Your task to perform on an android device: set the stopwatch Image 0: 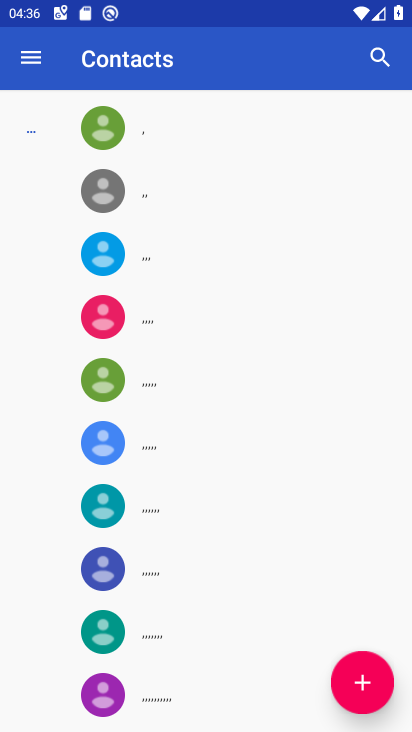
Step 0: press home button
Your task to perform on an android device: set the stopwatch Image 1: 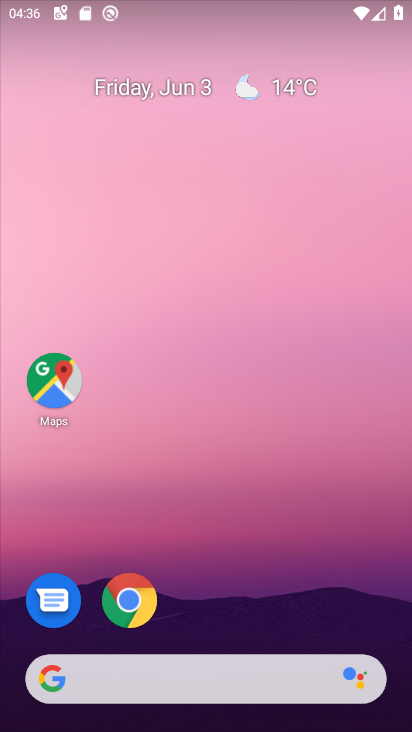
Step 1: drag from (255, 521) to (261, 153)
Your task to perform on an android device: set the stopwatch Image 2: 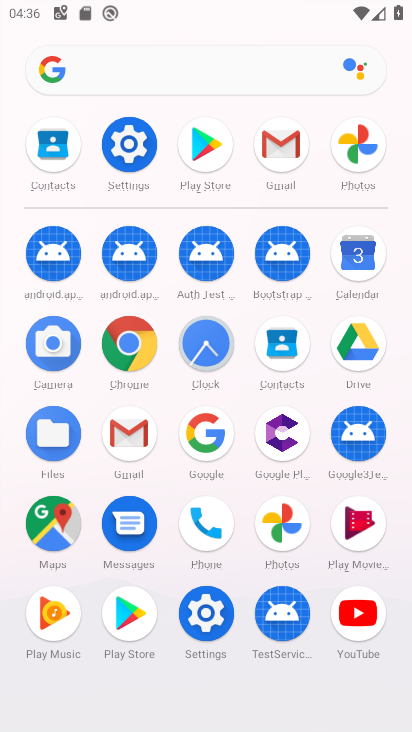
Step 2: click (213, 336)
Your task to perform on an android device: set the stopwatch Image 3: 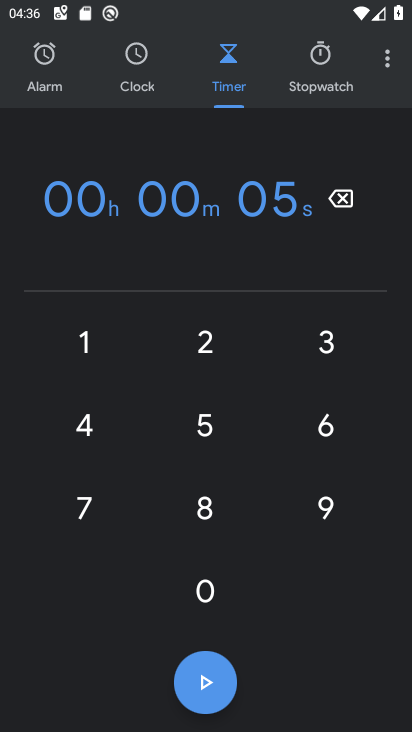
Step 3: click (313, 70)
Your task to perform on an android device: set the stopwatch Image 4: 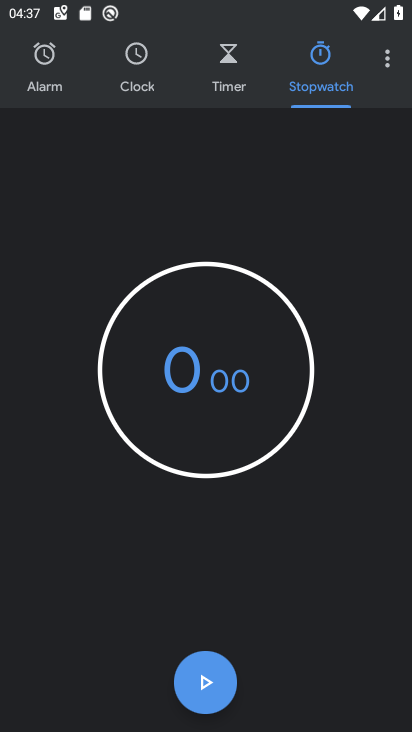
Step 4: click (203, 690)
Your task to perform on an android device: set the stopwatch Image 5: 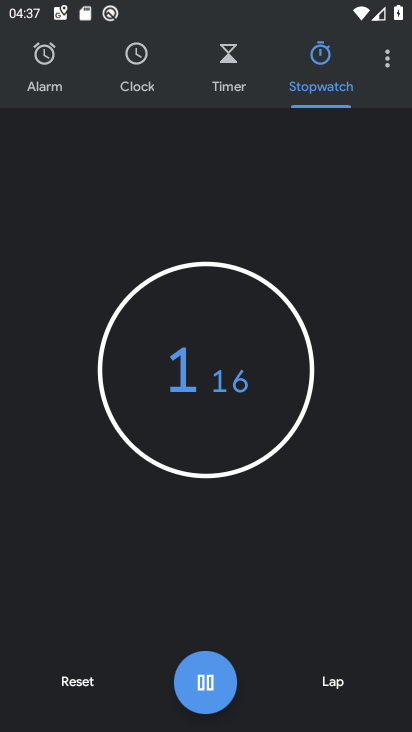
Step 5: click (203, 690)
Your task to perform on an android device: set the stopwatch Image 6: 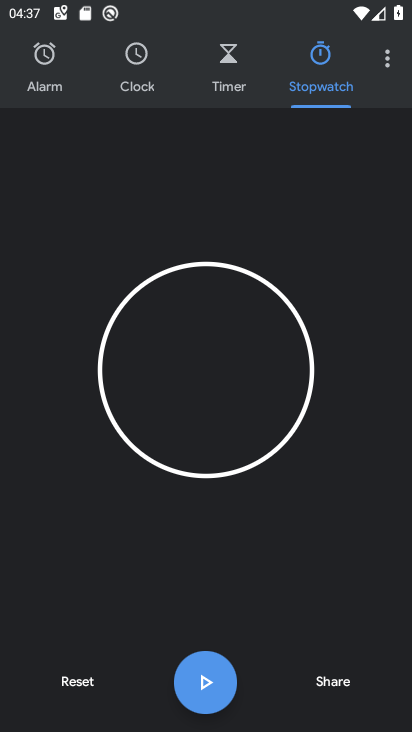
Step 6: task complete